Your task to perform on an android device: open sync settings in chrome Image 0: 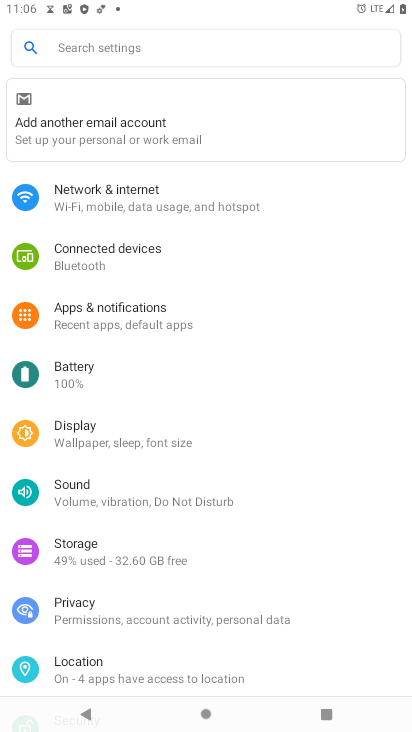
Step 0: press home button
Your task to perform on an android device: open sync settings in chrome Image 1: 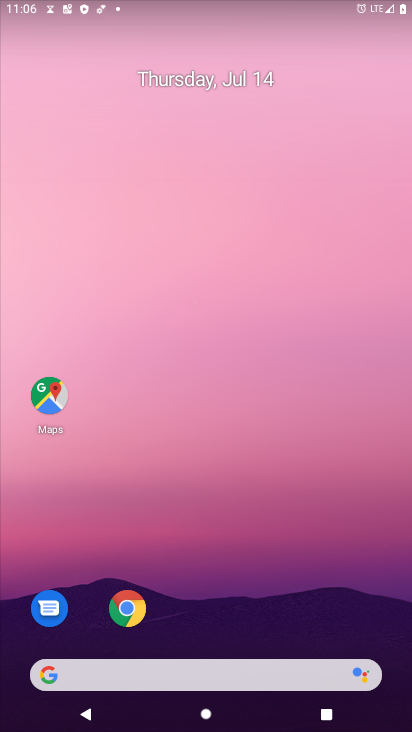
Step 1: click (128, 605)
Your task to perform on an android device: open sync settings in chrome Image 2: 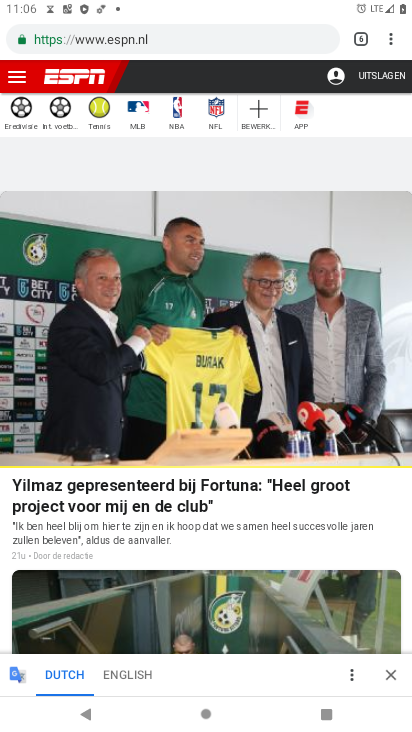
Step 2: click (393, 42)
Your task to perform on an android device: open sync settings in chrome Image 3: 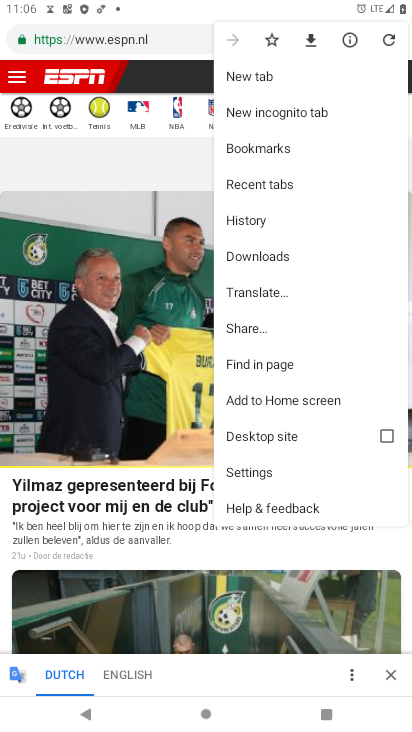
Step 3: click (253, 471)
Your task to perform on an android device: open sync settings in chrome Image 4: 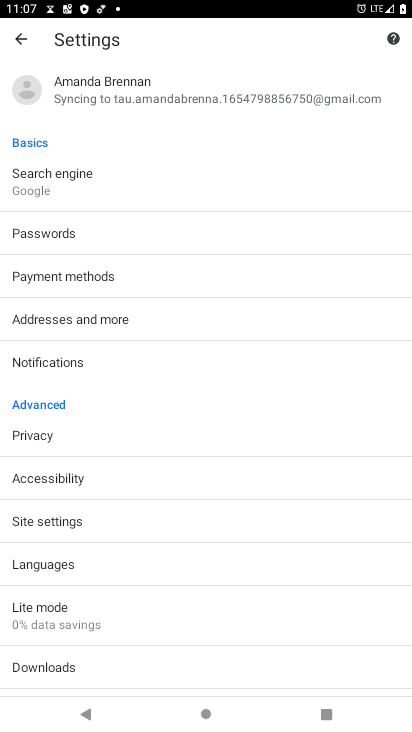
Step 4: click (70, 518)
Your task to perform on an android device: open sync settings in chrome Image 5: 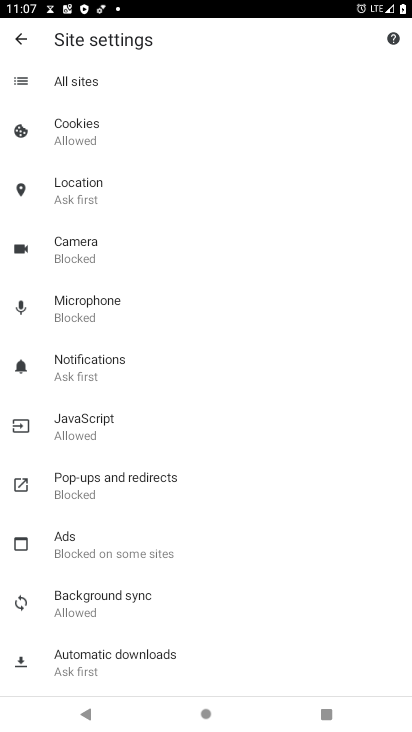
Step 5: click (88, 601)
Your task to perform on an android device: open sync settings in chrome Image 6: 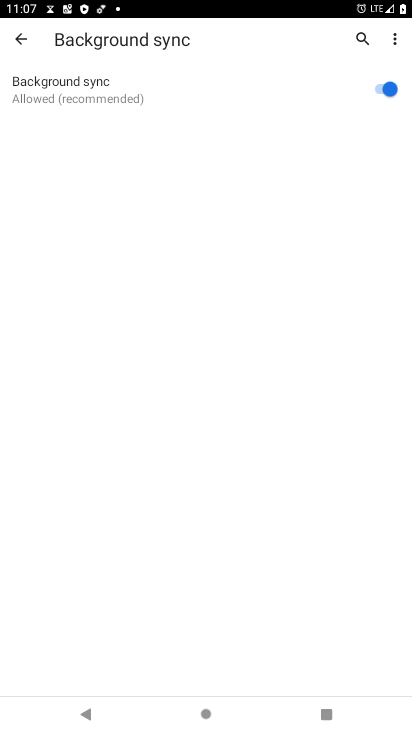
Step 6: task complete